Your task to perform on an android device: Go to ESPN.com Image 0: 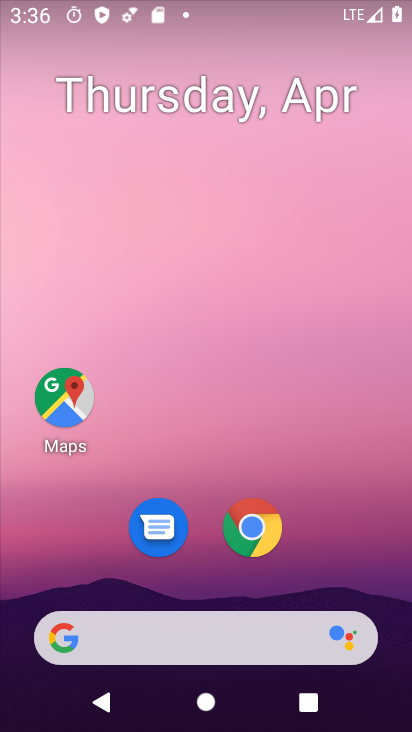
Step 0: drag from (315, 561) to (323, 108)
Your task to perform on an android device: Go to ESPN.com Image 1: 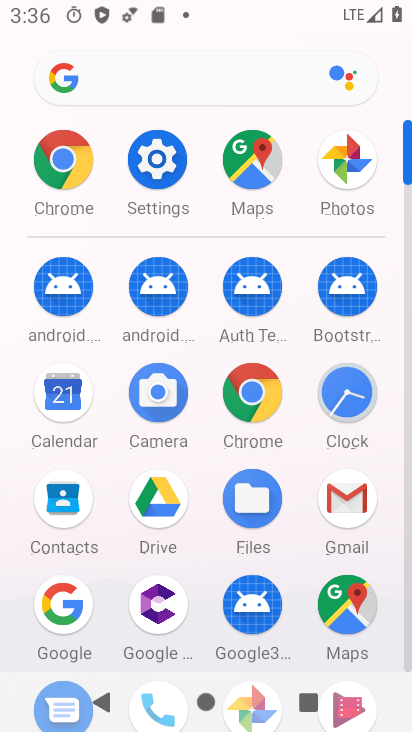
Step 1: click (271, 389)
Your task to perform on an android device: Go to ESPN.com Image 2: 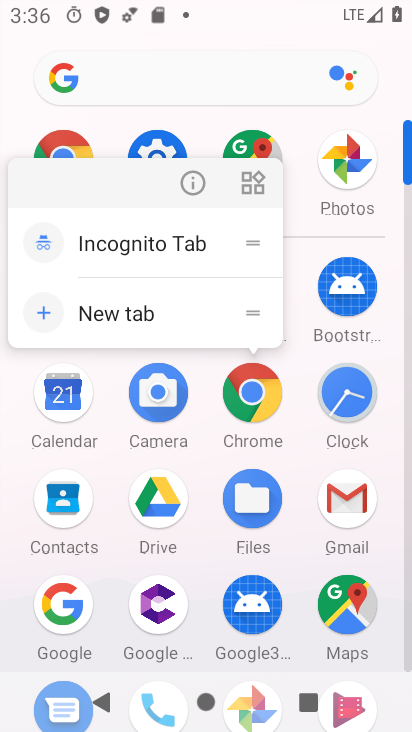
Step 2: click (253, 397)
Your task to perform on an android device: Go to ESPN.com Image 3: 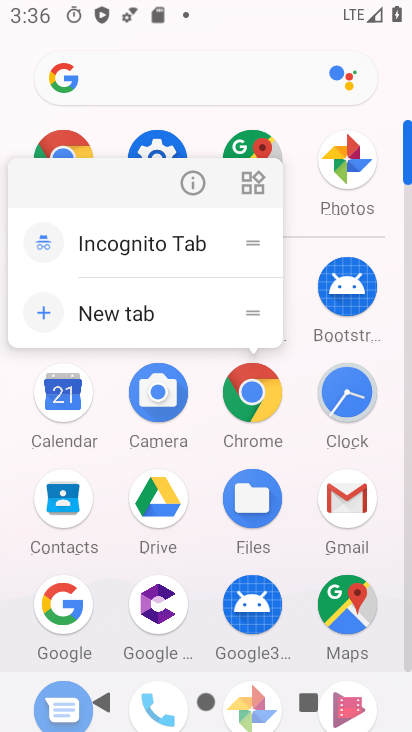
Step 3: click (252, 388)
Your task to perform on an android device: Go to ESPN.com Image 4: 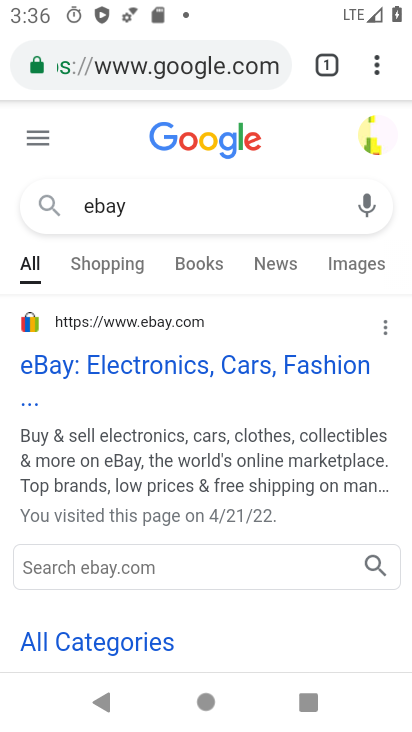
Step 4: click (179, 71)
Your task to perform on an android device: Go to ESPN.com Image 5: 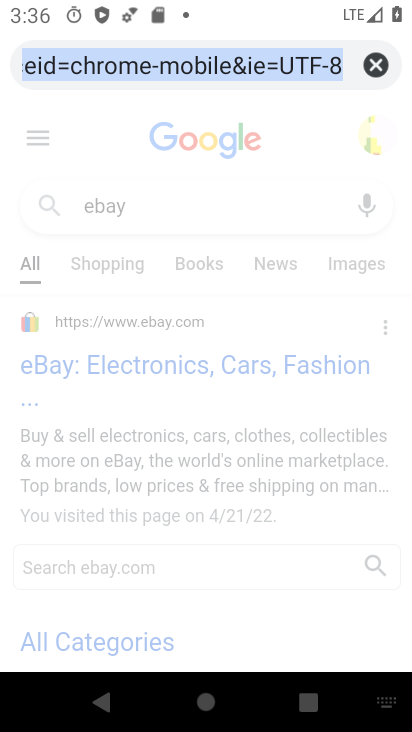
Step 5: type "espn.com"
Your task to perform on an android device: Go to ESPN.com Image 6: 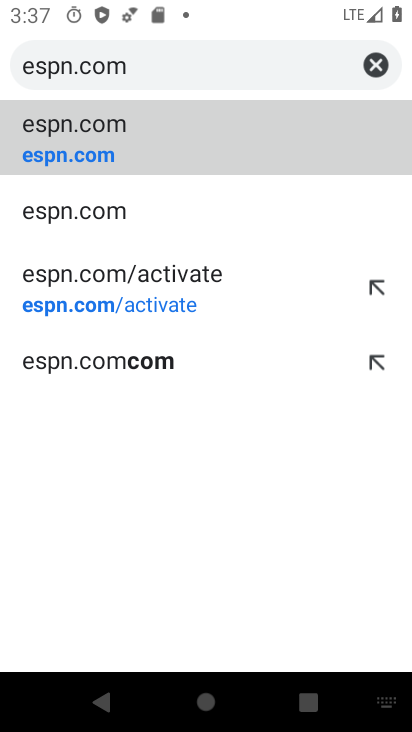
Step 6: click (244, 176)
Your task to perform on an android device: Go to ESPN.com Image 7: 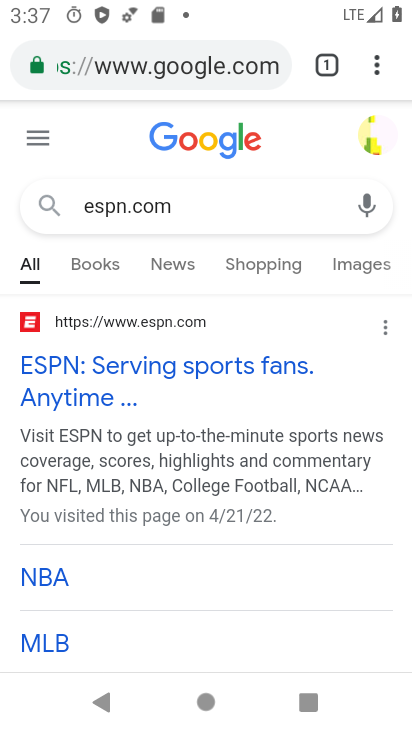
Step 7: click (136, 361)
Your task to perform on an android device: Go to ESPN.com Image 8: 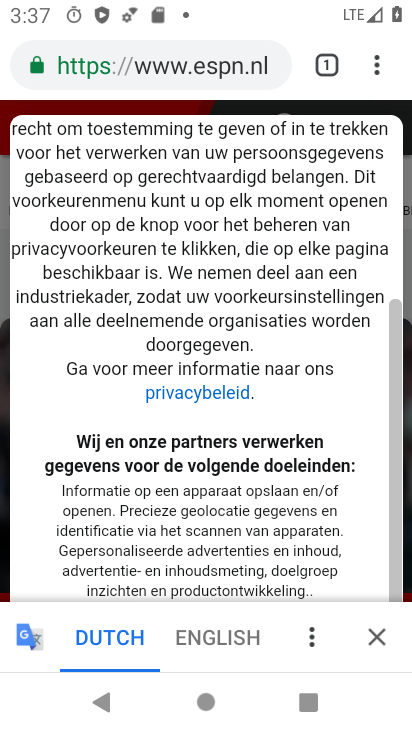
Step 8: task complete